Your task to perform on an android device: What is the recent news? Image 0: 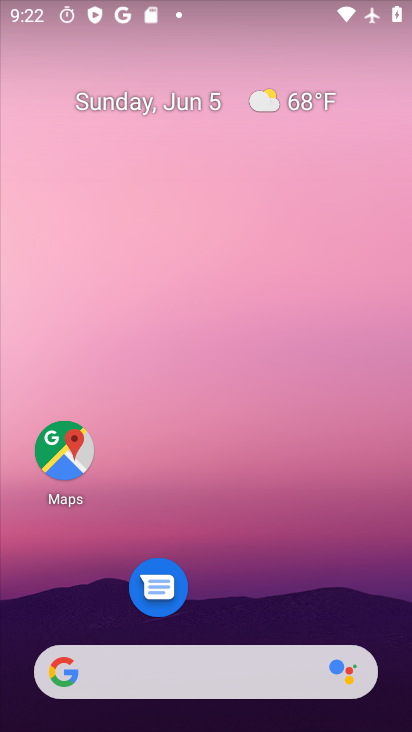
Step 0: click (214, 682)
Your task to perform on an android device: What is the recent news? Image 1: 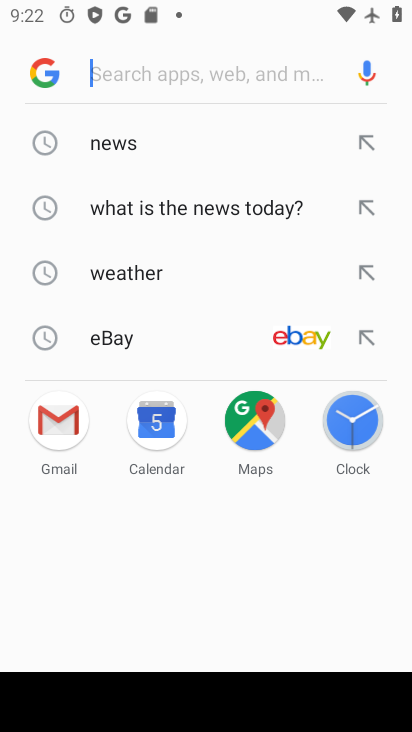
Step 1: type "recent news"
Your task to perform on an android device: What is the recent news? Image 2: 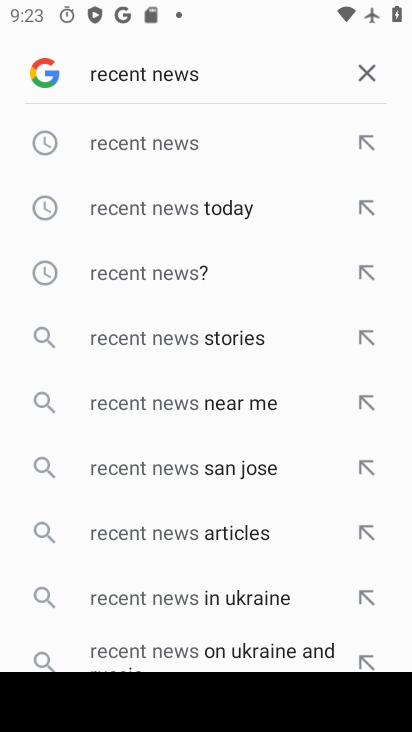
Step 2: click (126, 134)
Your task to perform on an android device: What is the recent news? Image 3: 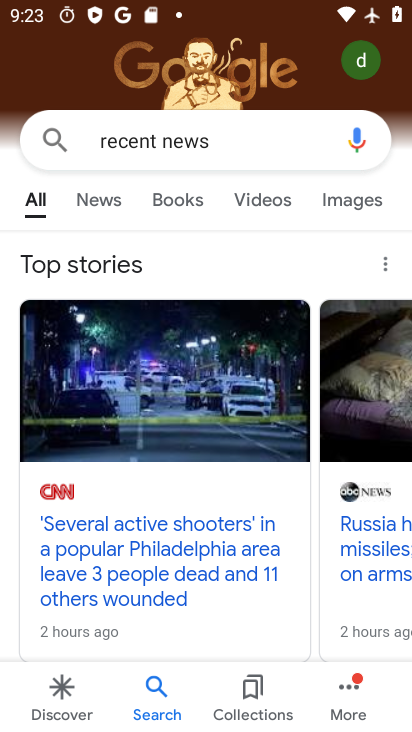
Step 3: task complete